Your task to perform on an android device: turn pop-ups on in chrome Image 0: 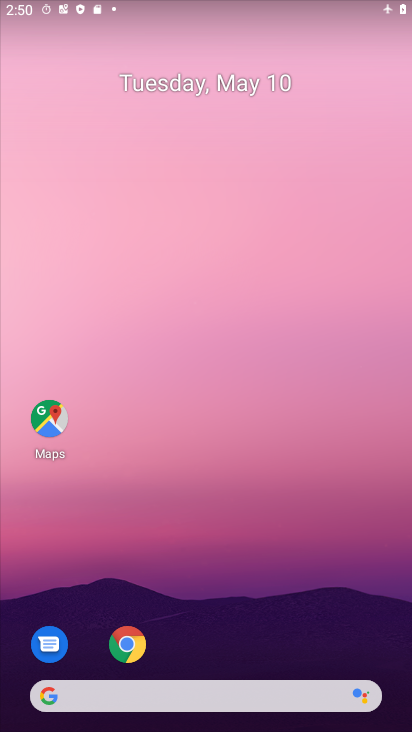
Step 0: drag from (233, 661) to (215, 311)
Your task to perform on an android device: turn pop-ups on in chrome Image 1: 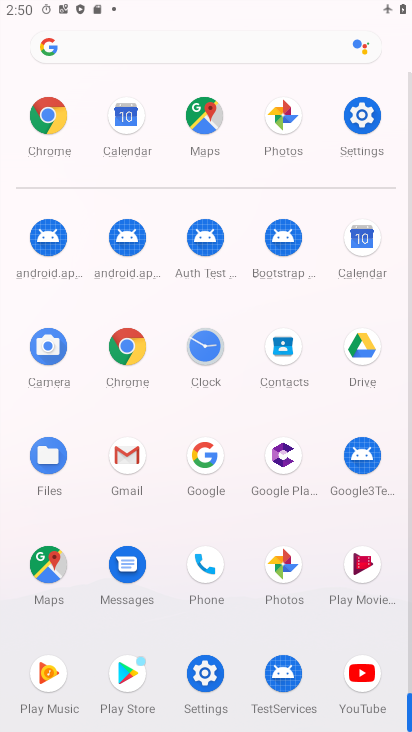
Step 1: click (131, 364)
Your task to perform on an android device: turn pop-ups on in chrome Image 2: 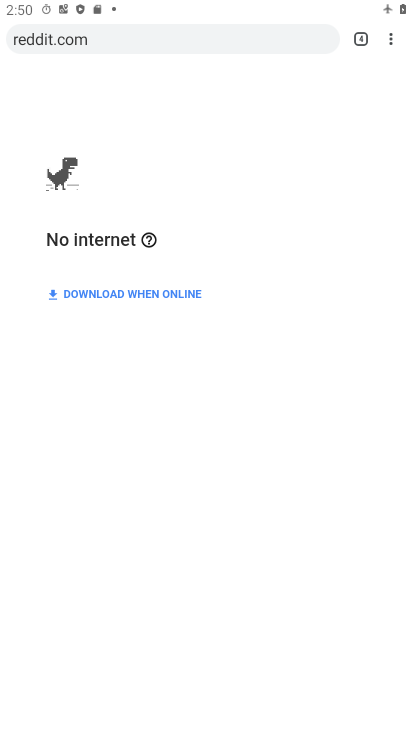
Step 2: click (396, 40)
Your task to perform on an android device: turn pop-ups on in chrome Image 3: 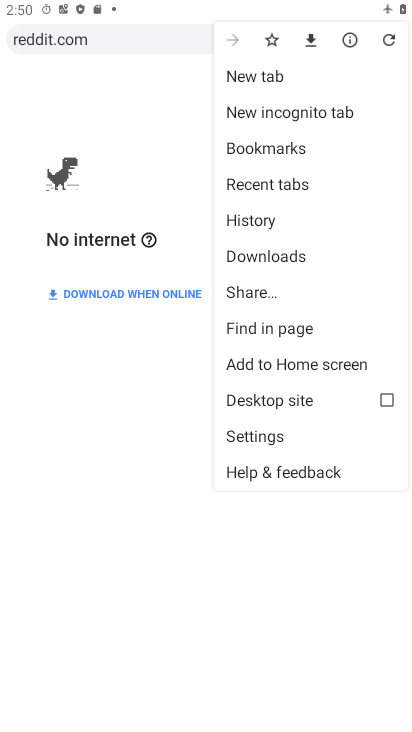
Step 3: click (288, 436)
Your task to perform on an android device: turn pop-ups on in chrome Image 4: 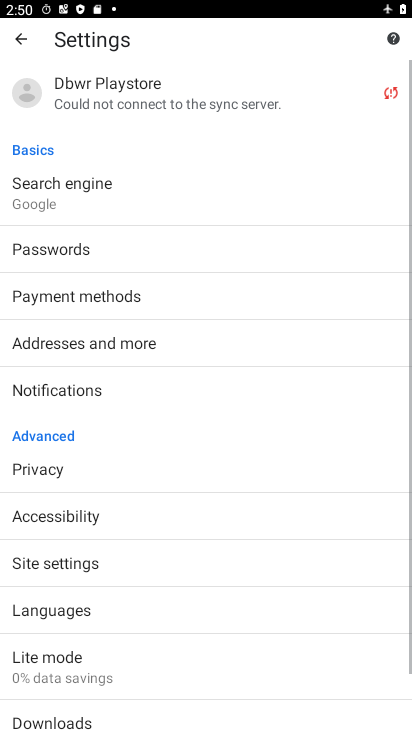
Step 4: drag from (121, 525) to (195, 240)
Your task to perform on an android device: turn pop-ups on in chrome Image 5: 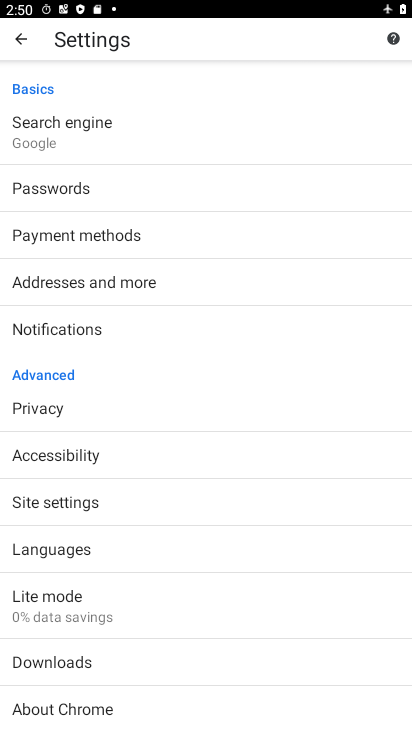
Step 5: click (103, 512)
Your task to perform on an android device: turn pop-ups on in chrome Image 6: 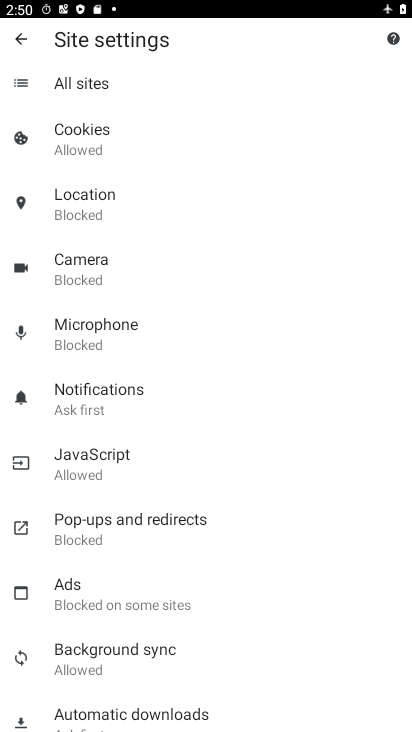
Step 6: click (133, 532)
Your task to perform on an android device: turn pop-ups on in chrome Image 7: 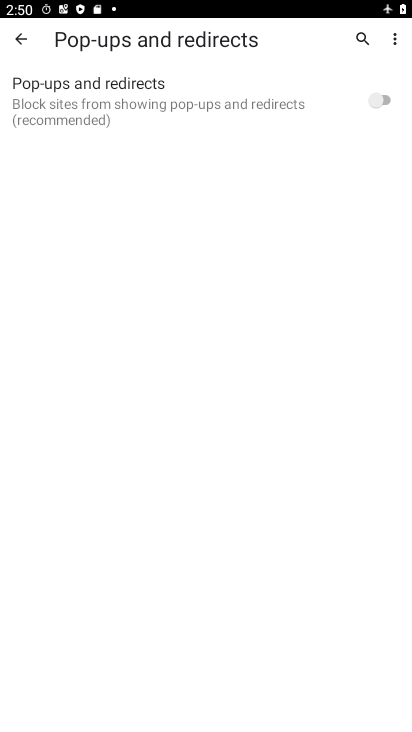
Step 7: click (377, 99)
Your task to perform on an android device: turn pop-ups on in chrome Image 8: 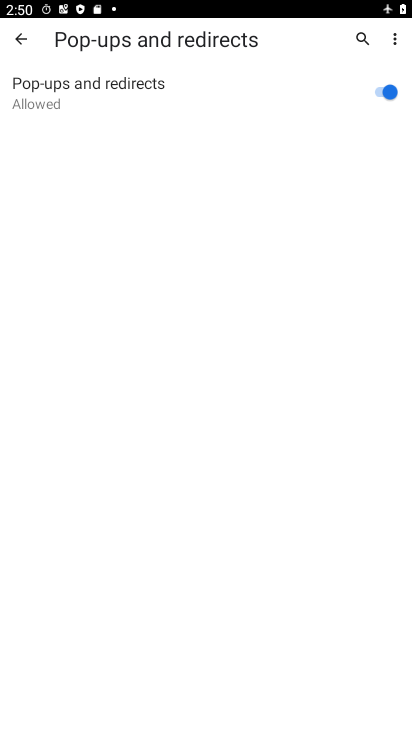
Step 8: task complete